Your task to perform on an android device: Open the Play Movies app and select the watchlist tab. Image 0: 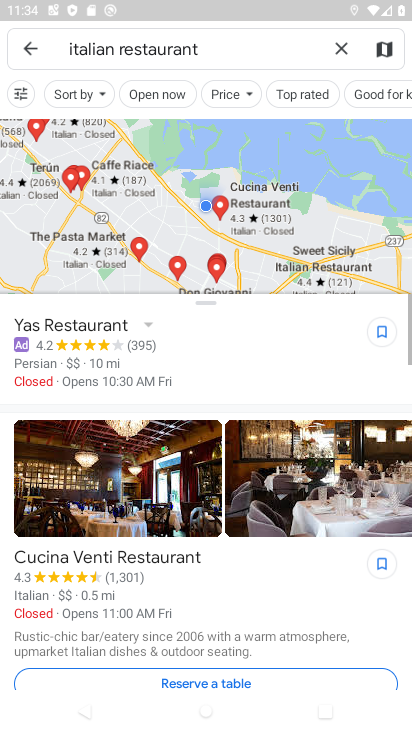
Step 0: press home button
Your task to perform on an android device: Open the Play Movies app and select the watchlist tab. Image 1: 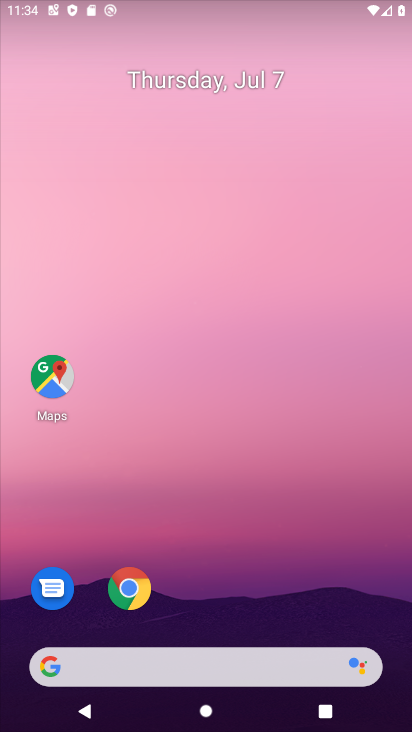
Step 1: drag from (244, 607) to (275, 113)
Your task to perform on an android device: Open the Play Movies app and select the watchlist tab. Image 2: 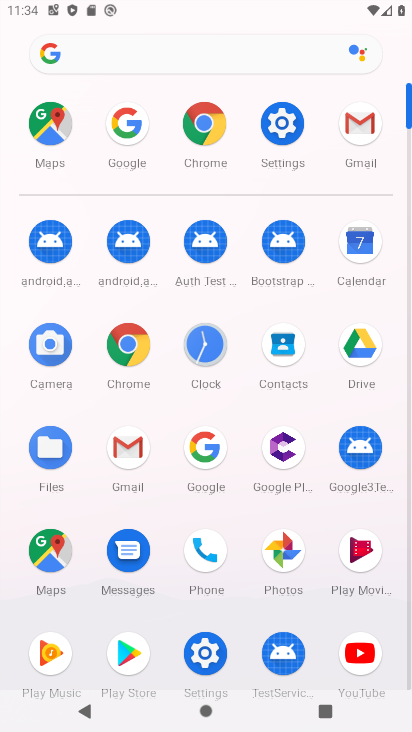
Step 2: drag from (321, 619) to (323, 356)
Your task to perform on an android device: Open the Play Movies app and select the watchlist tab. Image 3: 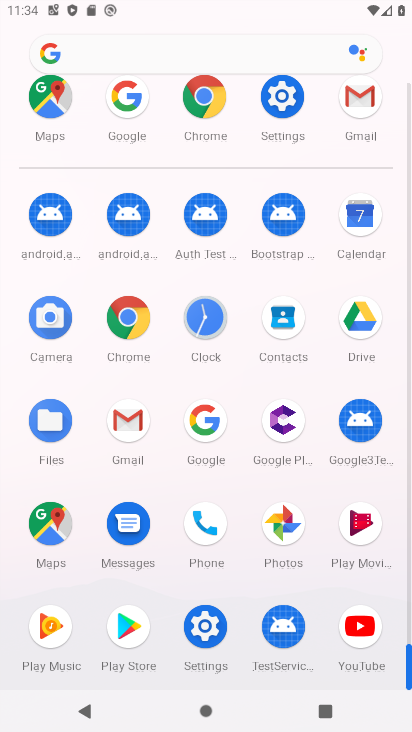
Step 3: click (367, 523)
Your task to perform on an android device: Open the Play Movies app and select the watchlist tab. Image 4: 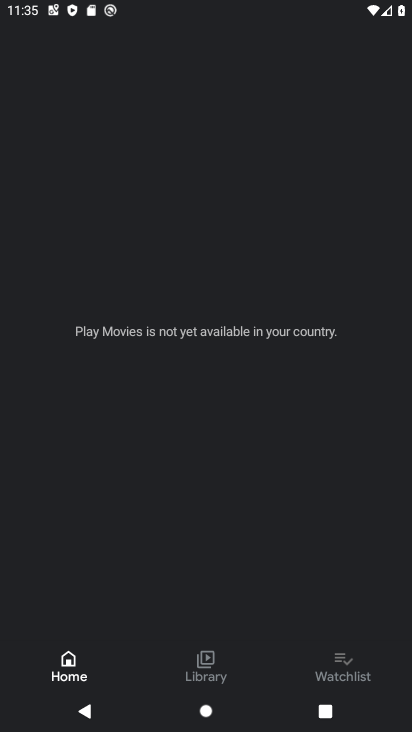
Step 4: click (345, 665)
Your task to perform on an android device: Open the Play Movies app and select the watchlist tab. Image 5: 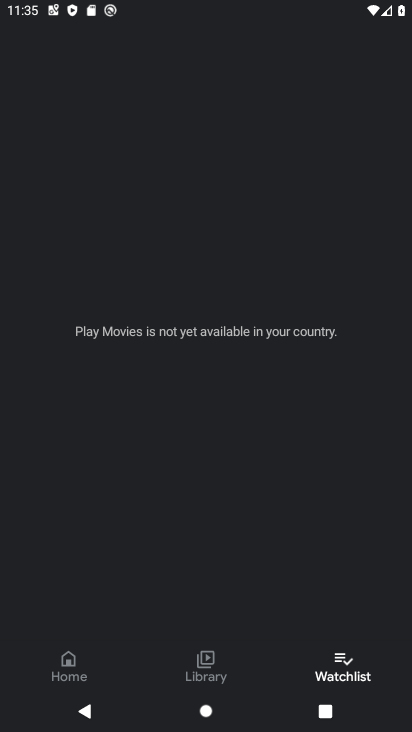
Step 5: task complete